Your task to perform on an android device: toggle notifications settings in the gmail app Image 0: 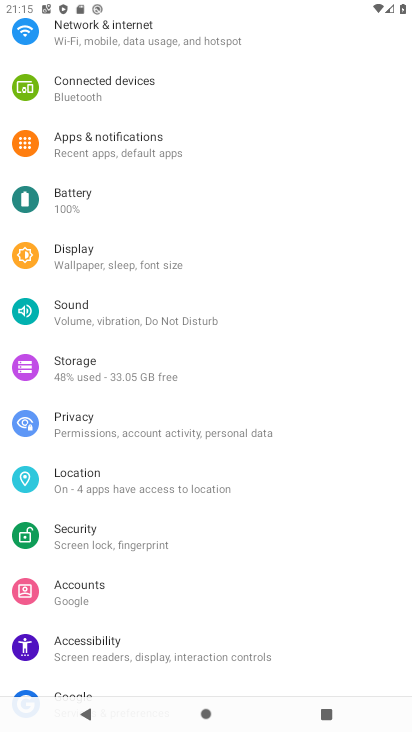
Step 0: press home button
Your task to perform on an android device: toggle notifications settings in the gmail app Image 1: 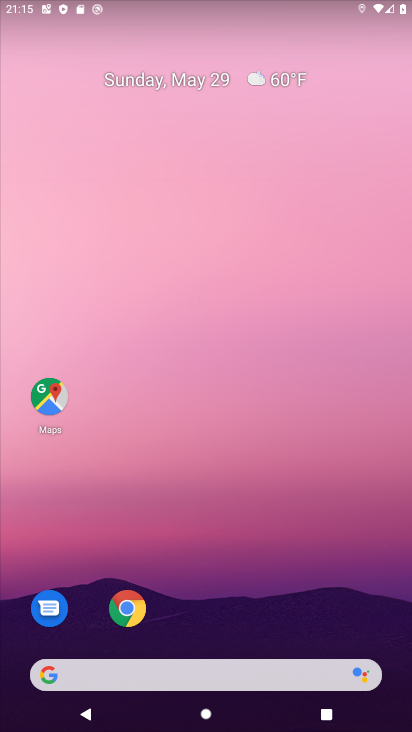
Step 1: drag from (360, 624) to (393, 229)
Your task to perform on an android device: toggle notifications settings in the gmail app Image 2: 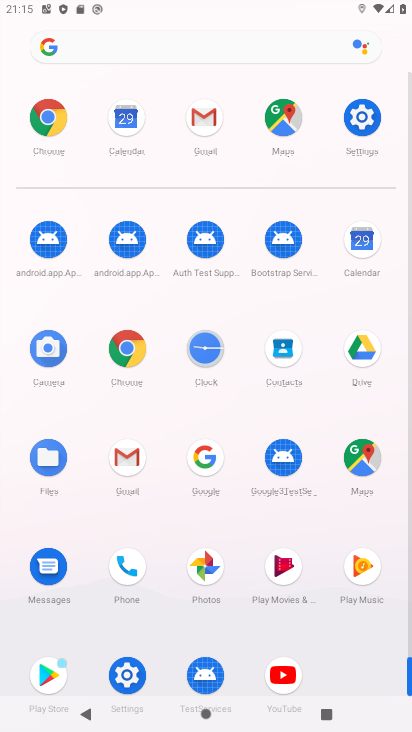
Step 2: click (134, 466)
Your task to perform on an android device: toggle notifications settings in the gmail app Image 3: 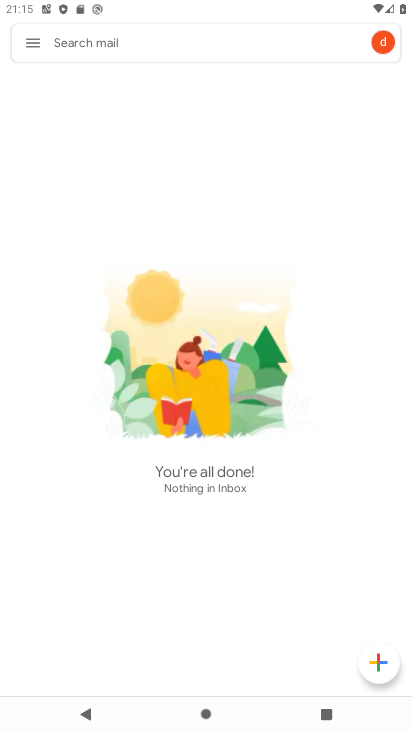
Step 3: click (33, 42)
Your task to perform on an android device: toggle notifications settings in the gmail app Image 4: 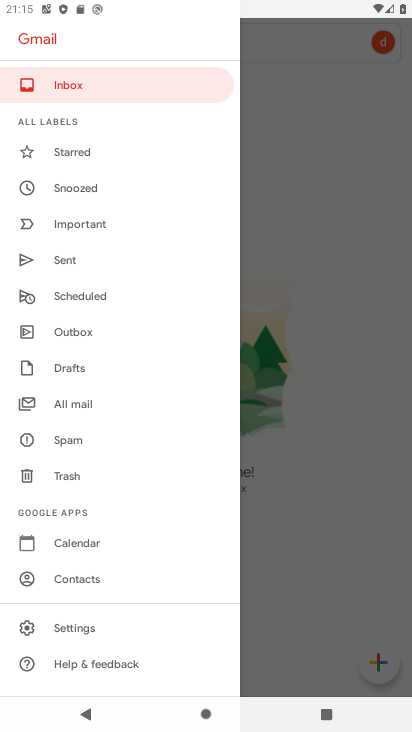
Step 4: click (109, 632)
Your task to perform on an android device: toggle notifications settings in the gmail app Image 5: 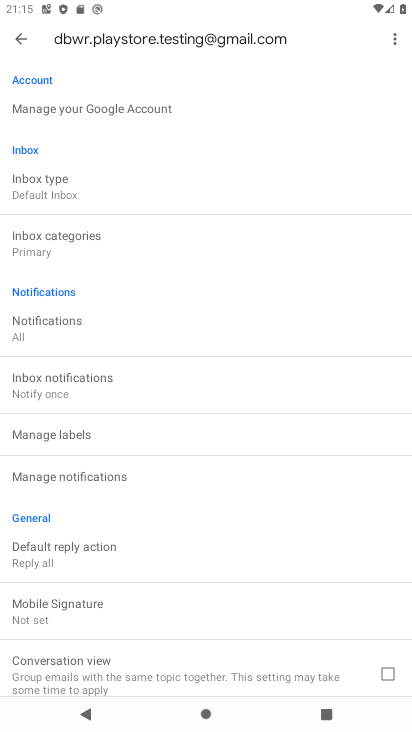
Step 5: click (153, 472)
Your task to perform on an android device: toggle notifications settings in the gmail app Image 6: 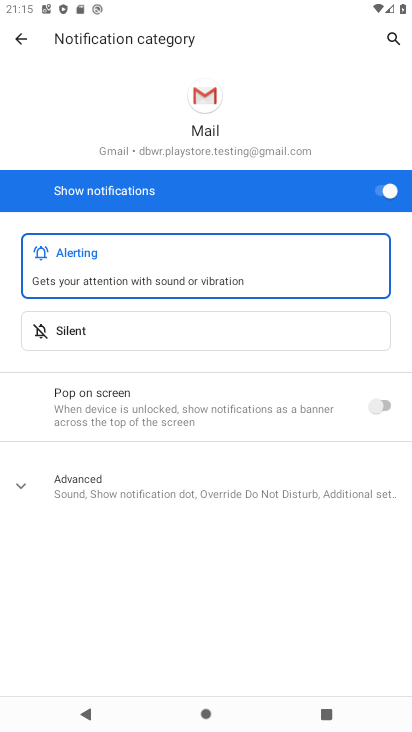
Step 6: click (385, 190)
Your task to perform on an android device: toggle notifications settings in the gmail app Image 7: 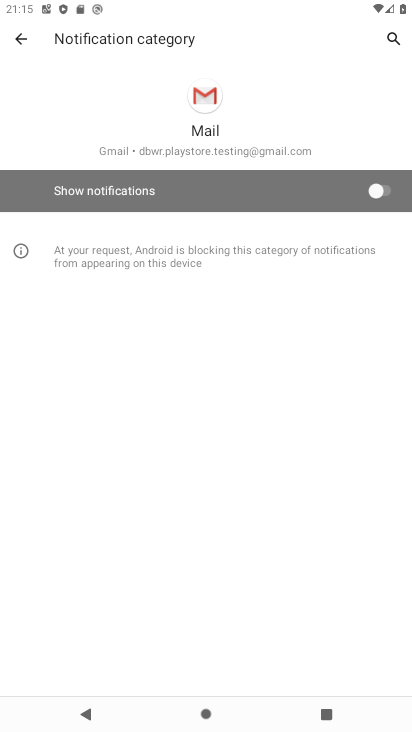
Step 7: task complete